Your task to perform on an android device: find photos in the google photos app Image 0: 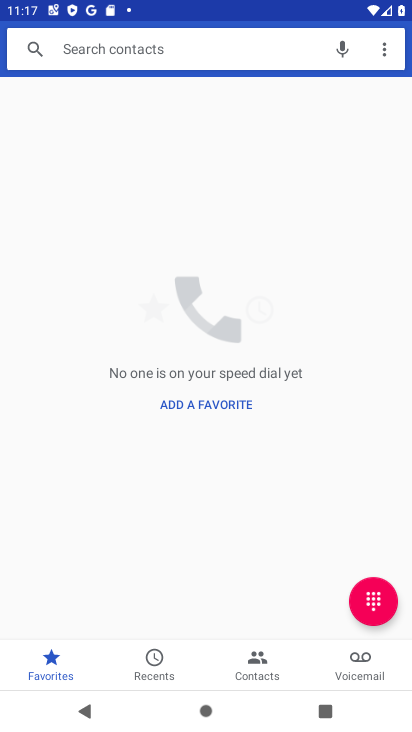
Step 0: press home button
Your task to perform on an android device: find photos in the google photos app Image 1: 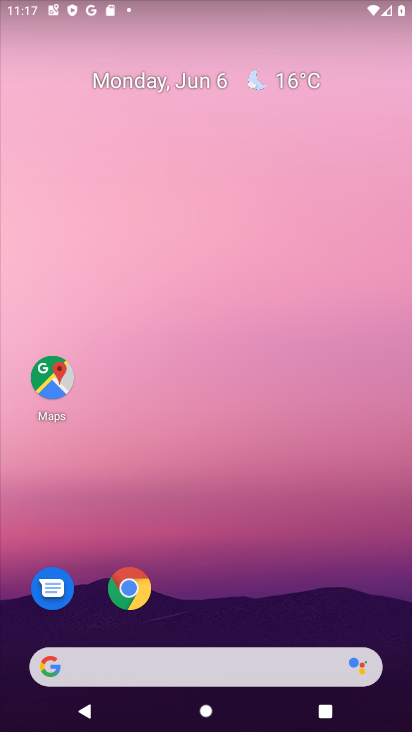
Step 1: drag from (237, 529) to (270, 353)
Your task to perform on an android device: find photos in the google photos app Image 2: 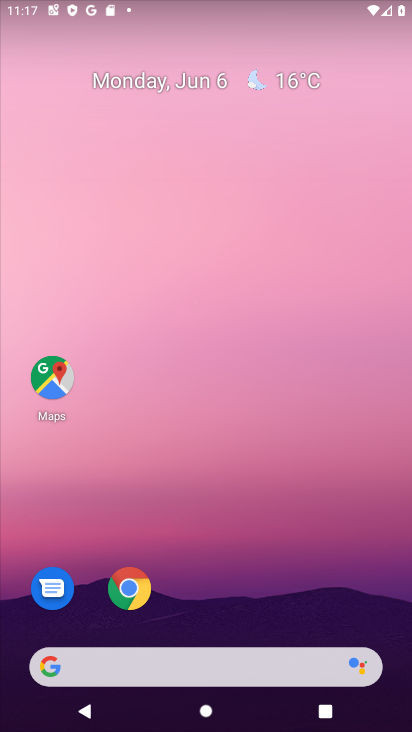
Step 2: drag from (315, 561) to (318, 335)
Your task to perform on an android device: find photos in the google photos app Image 3: 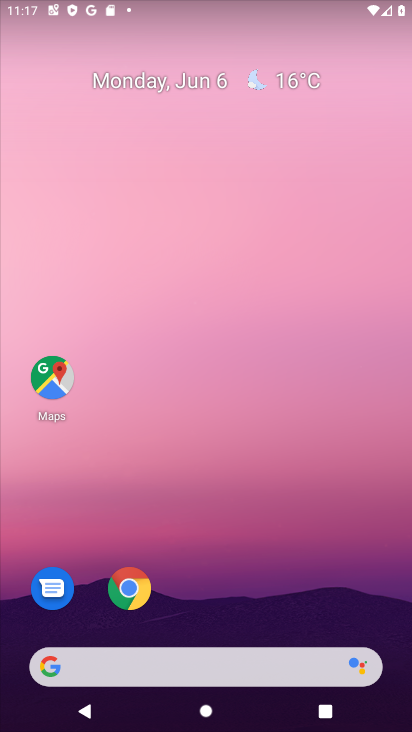
Step 3: drag from (241, 519) to (283, 69)
Your task to perform on an android device: find photos in the google photos app Image 4: 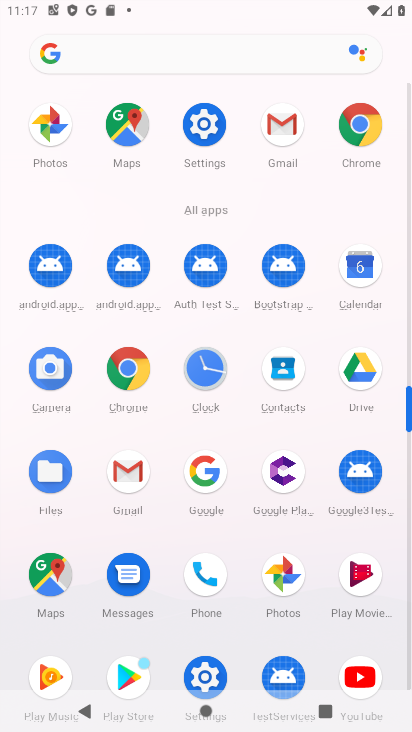
Step 4: click (274, 577)
Your task to perform on an android device: find photos in the google photos app Image 5: 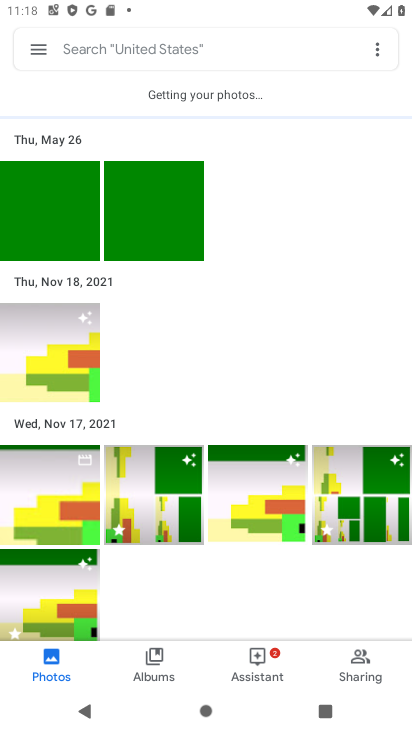
Step 5: task complete